Your task to perform on an android device: Check the weather Image 0: 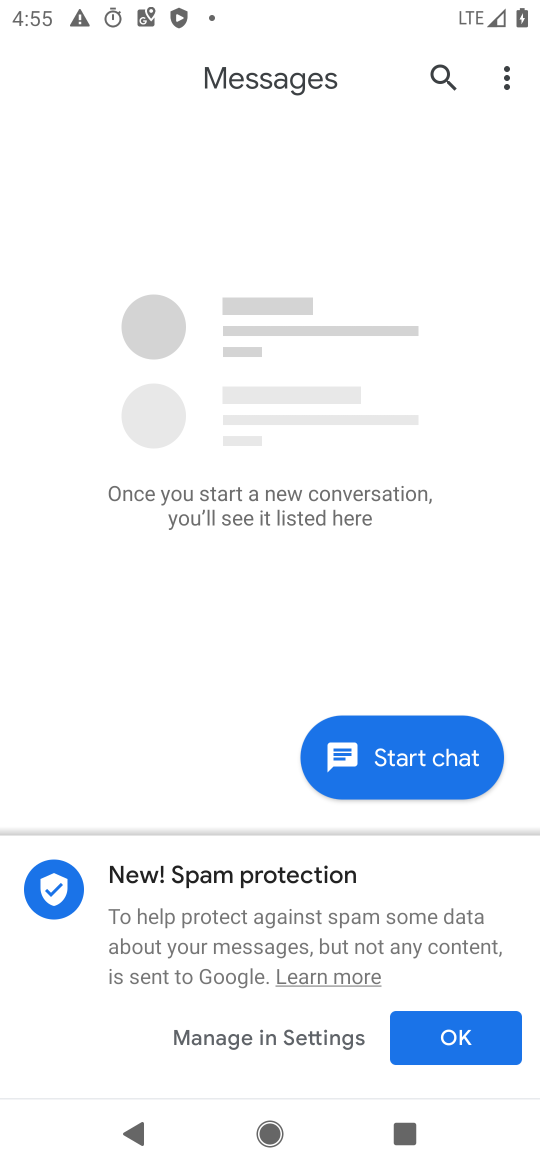
Step 0: press home button
Your task to perform on an android device: Check the weather Image 1: 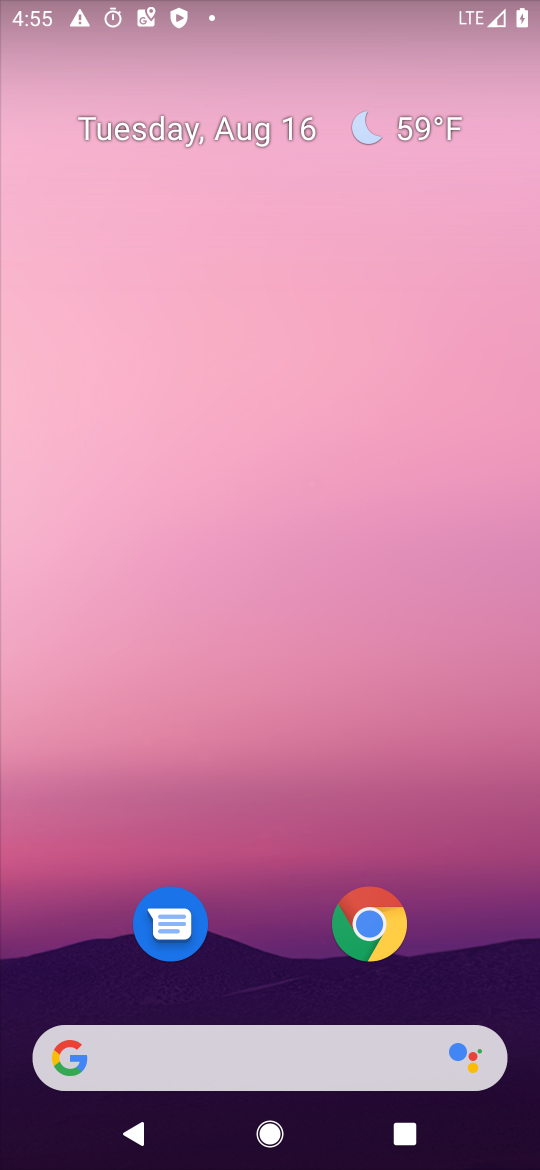
Step 1: click (197, 1064)
Your task to perform on an android device: Check the weather Image 2: 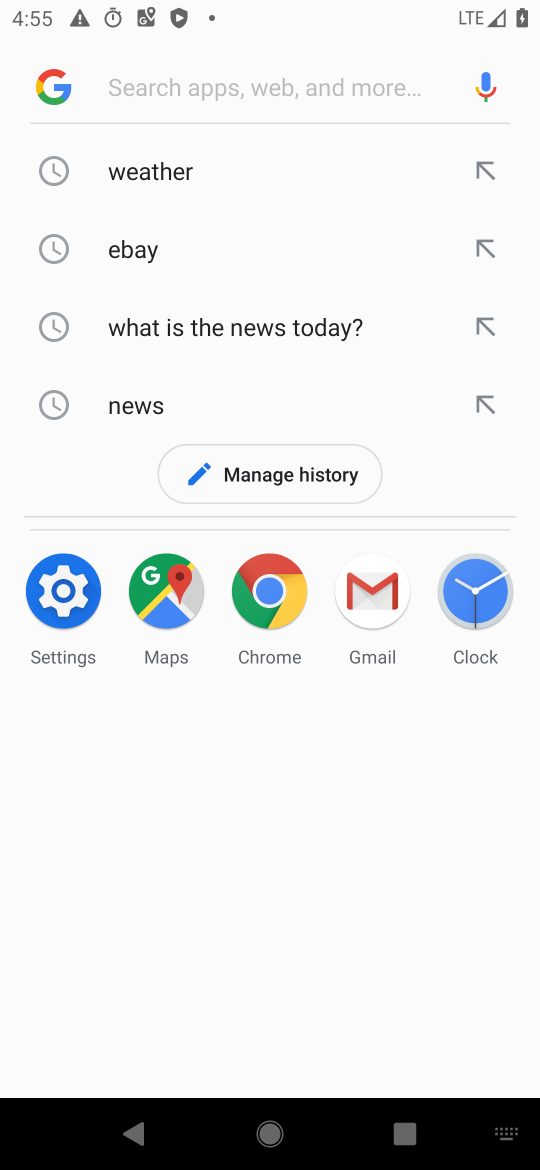
Step 2: click (212, 167)
Your task to perform on an android device: Check the weather Image 3: 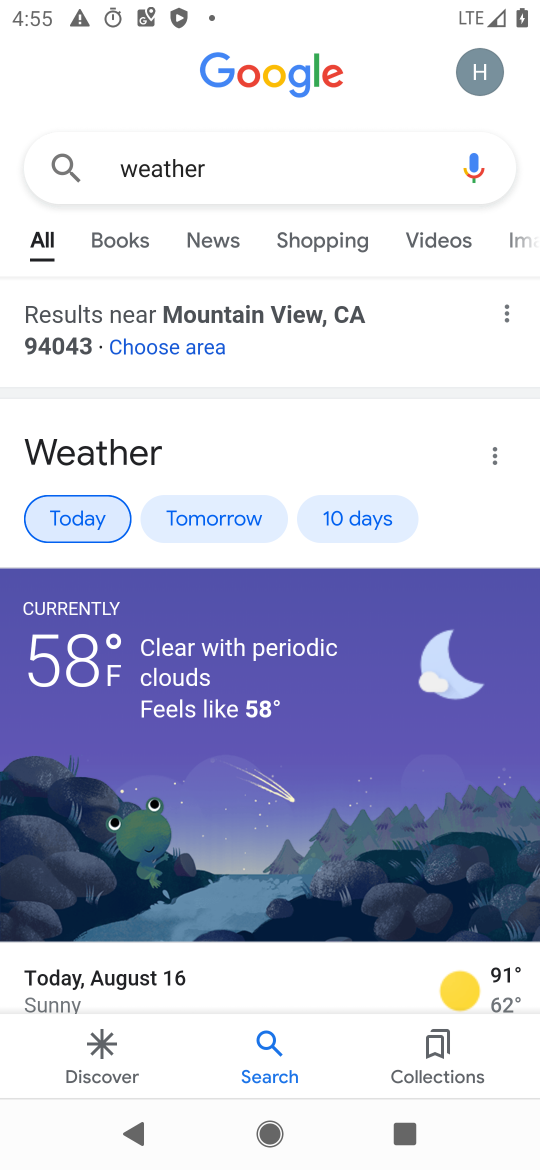
Step 3: task complete